Your task to perform on an android device: Go to Reddit.com Image 0: 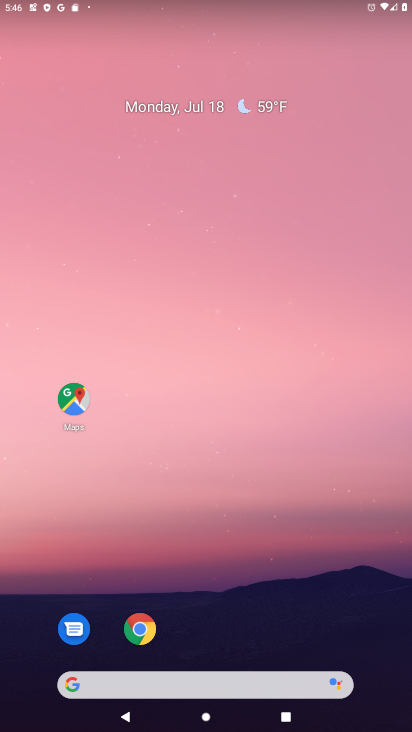
Step 0: drag from (241, 571) to (273, 147)
Your task to perform on an android device: Go to Reddit.com Image 1: 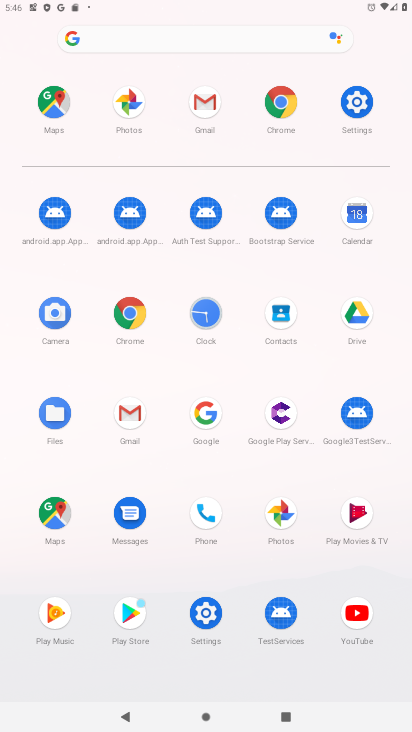
Step 1: click (279, 101)
Your task to perform on an android device: Go to Reddit.com Image 2: 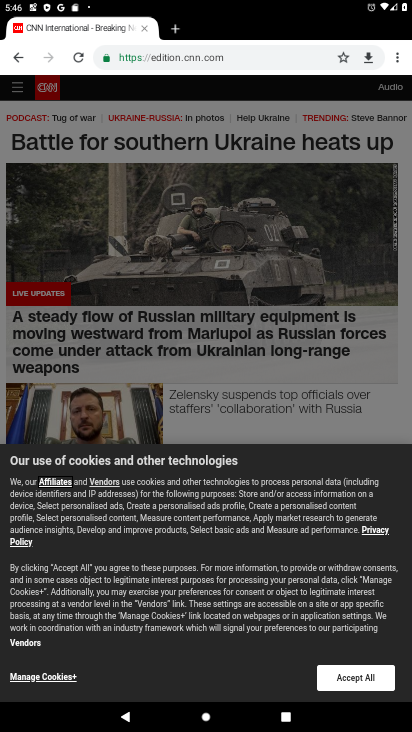
Step 2: click (205, 57)
Your task to perform on an android device: Go to Reddit.com Image 3: 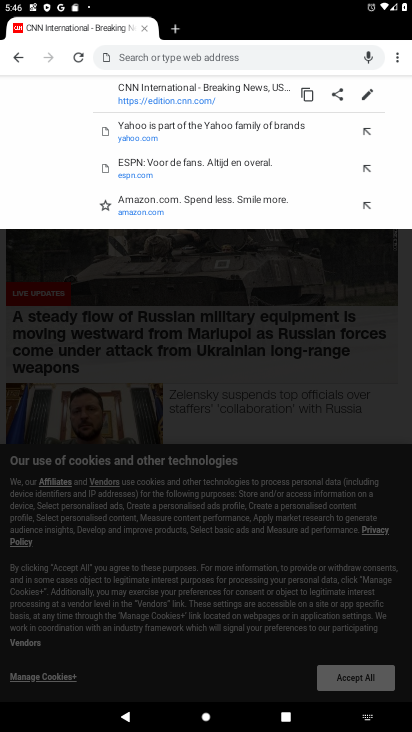
Step 3: type "reddit.com"
Your task to perform on an android device: Go to Reddit.com Image 4: 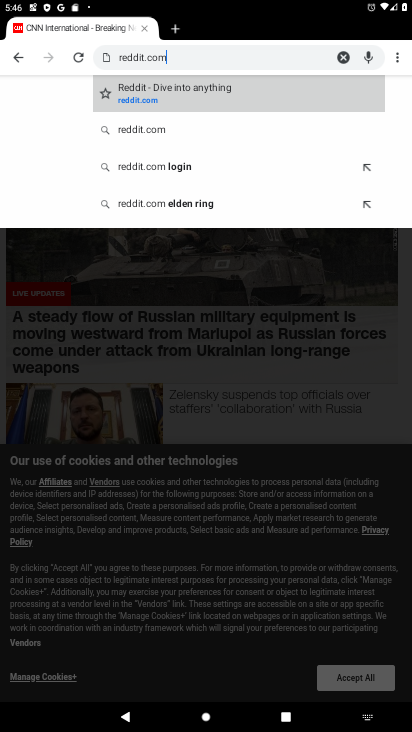
Step 4: click (145, 95)
Your task to perform on an android device: Go to Reddit.com Image 5: 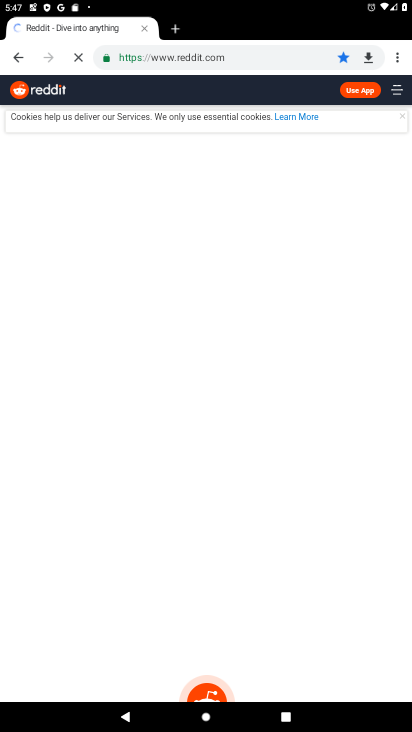
Step 5: task complete